Your task to perform on an android device: Open Google Chrome Image 0: 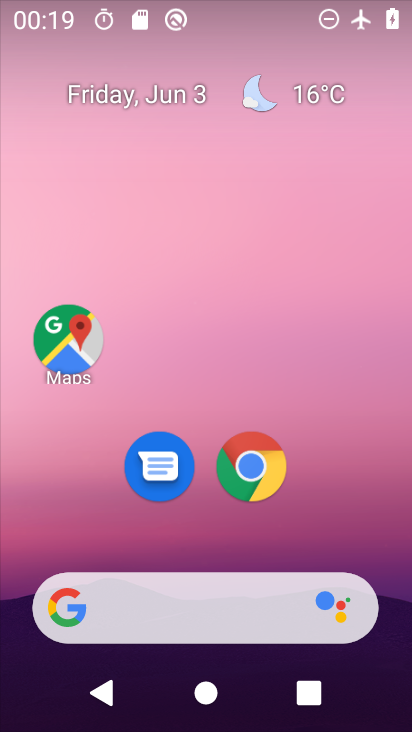
Step 0: click (243, 472)
Your task to perform on an android device: Open Google Chrome Image 1: 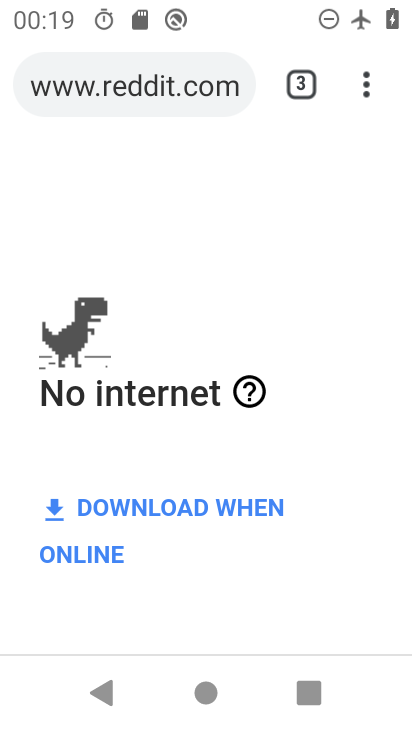
Step 1: task complete